Your task to perform on an android device: Open wifi settings Image 0: 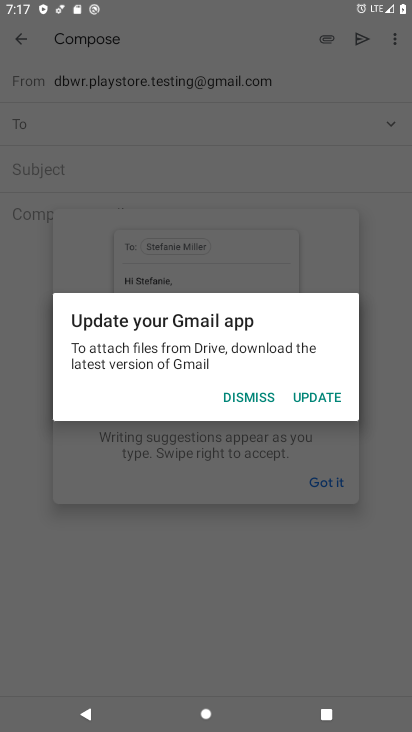
Step 0: press home button
Your task to perform on an android device: Open wifi settings Image 1: 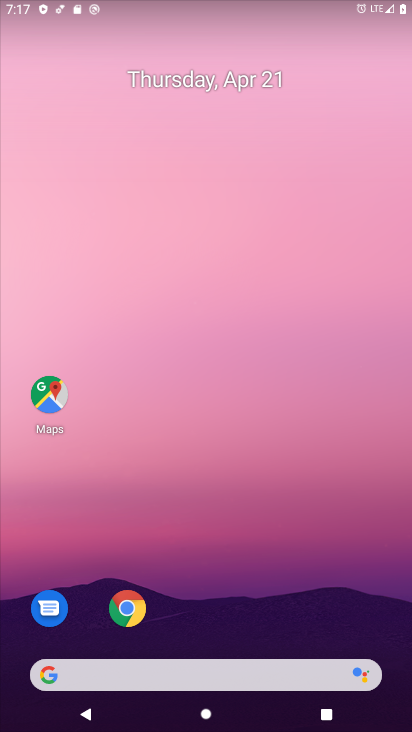
Step 1: drag from (207, 603) to (222, 166)
Your task to perform on an android device: Open wifi settings Image 2: 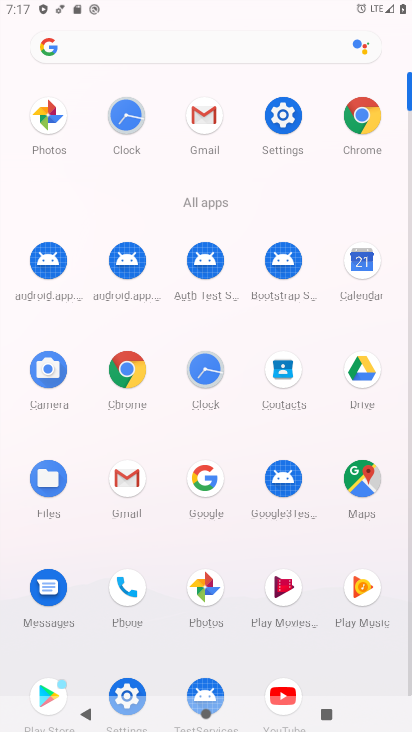
Step 2: click (276, 124)
Your task to perform on an android device: Open wifi settings Image 3: 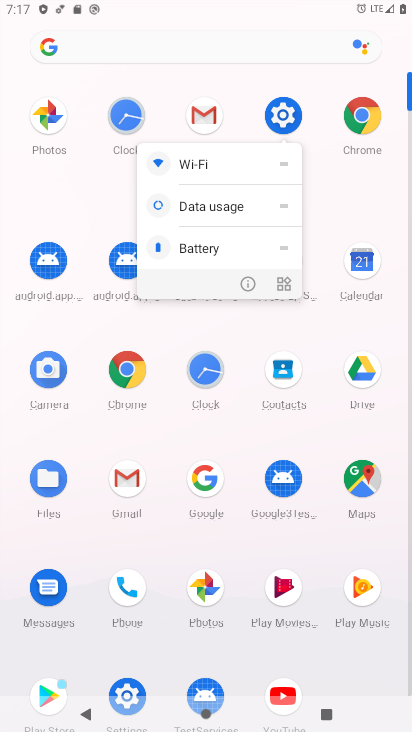
Step 3: click (285, 120)
Your task to perform on an android device: Open wifi settings Image 4: 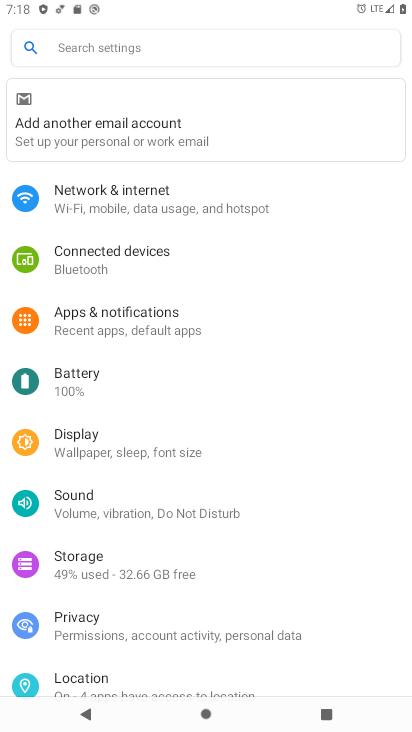
Step 4: click (175, 207)
Your task to perform on an android device: Open wifi settings Image 5: 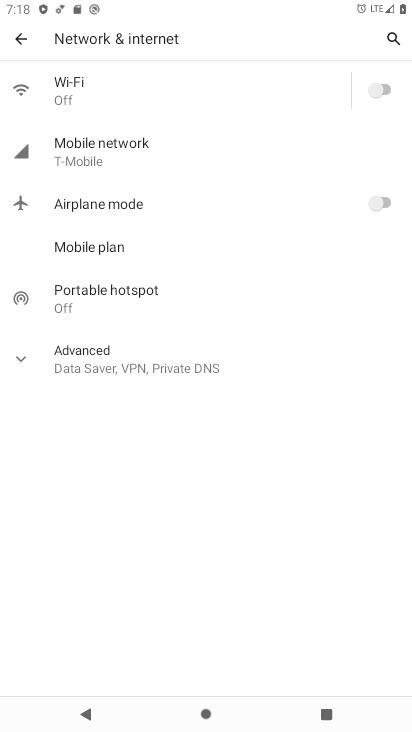
Step 5: click (238, 96)
Your task to perform on an android device: Open wifi settings Image 6: 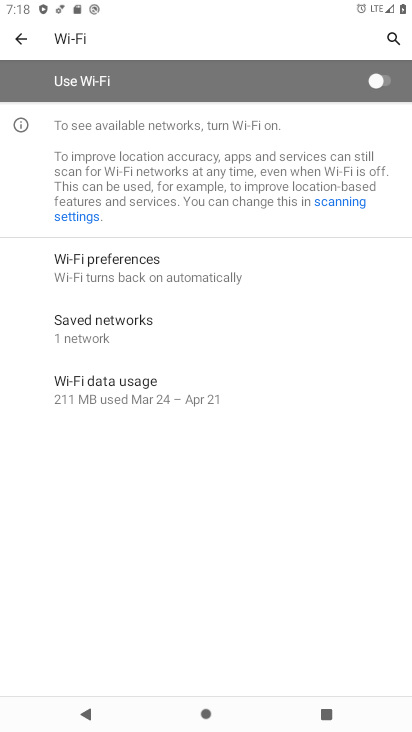
Step 6: task complete